Your task to perform on an android device: Open Youtube and go to "Your channel" Image 0: 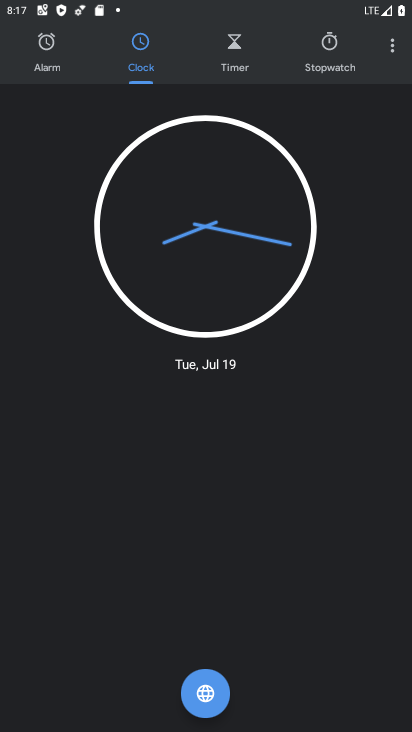
Step 0: press home button
Your task to perform on an android device: Open Youtube and go to "Your channel" Image 1: 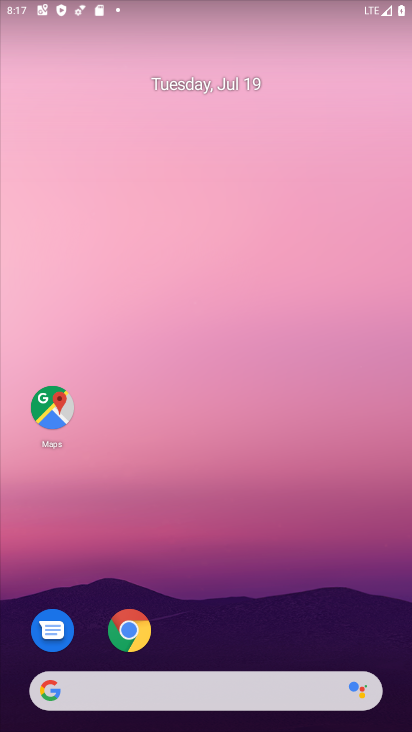
Step 1: drag from (100, 623) to (205, 107)
Your task to perform on an android device: Open Youtube and go to "Your channel" Image 2: 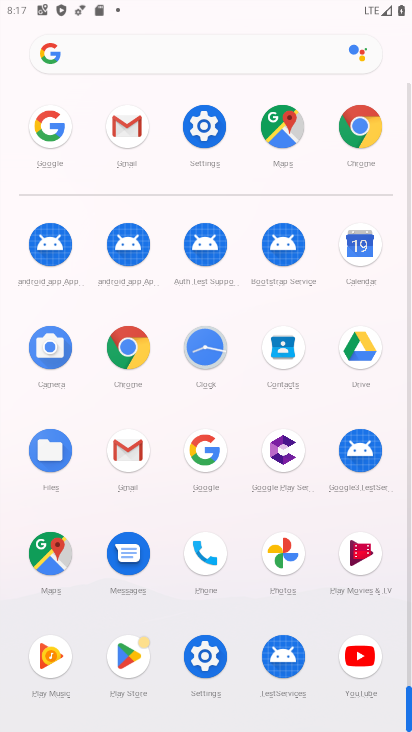
Step 2: drag from (199, 497) to (245, 157)
Your task to perform on an android device: Open Youtube and go to "Your channel" Image 3: 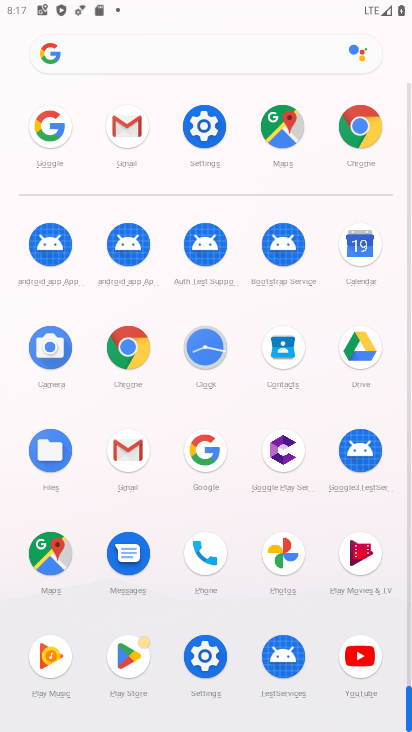
Step 3: click (367, 671)
Your task to perform on an android device: Open Youtube and go to "Your channel" Image 4: 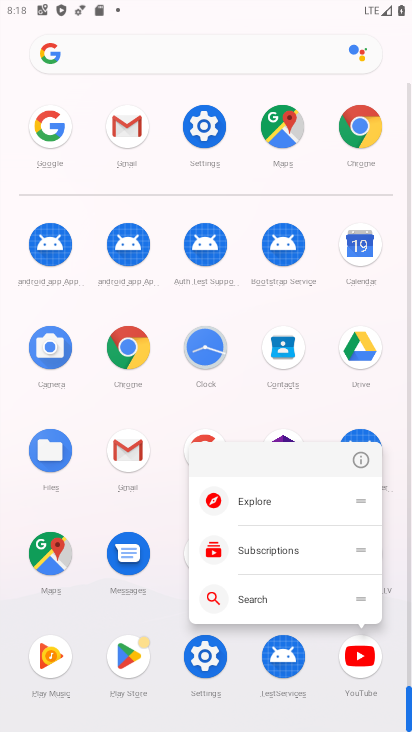
Step 4: click (350, 665)
Your task to perform on an android device: Open Youtube and go to "Your channel" Image 5: 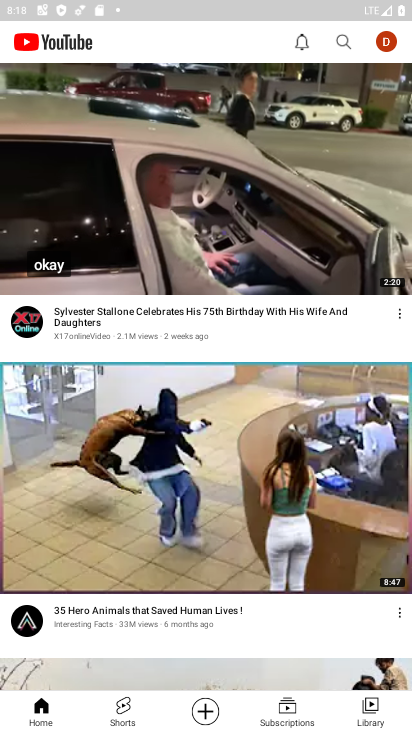
Step 5: press home button
Your task to perform on an android device: Open Youtube and go to "Your channel" Image 6: 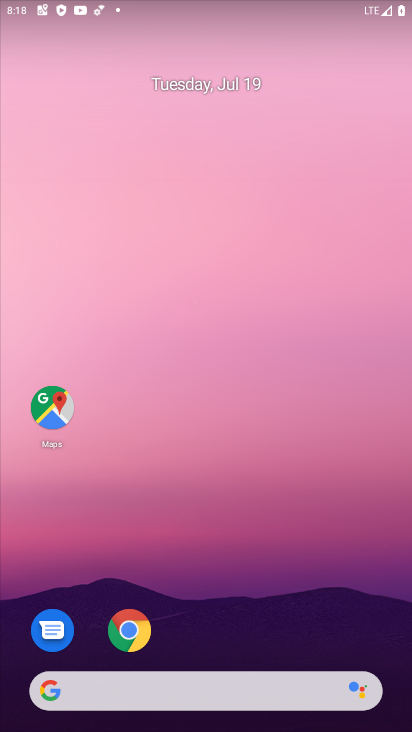
Step 6: drag from (185, 700) to (185, 62)
Your task to perform on an android device: Open Youtube and go to "Your channel" Image 7: 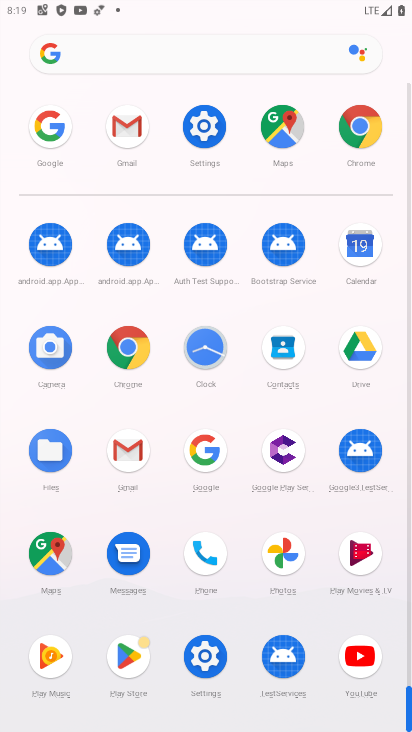
Step 7: click (366, 663)
Your task to perform on an android device: Open Youtube and go to "Your channel" Image 8: 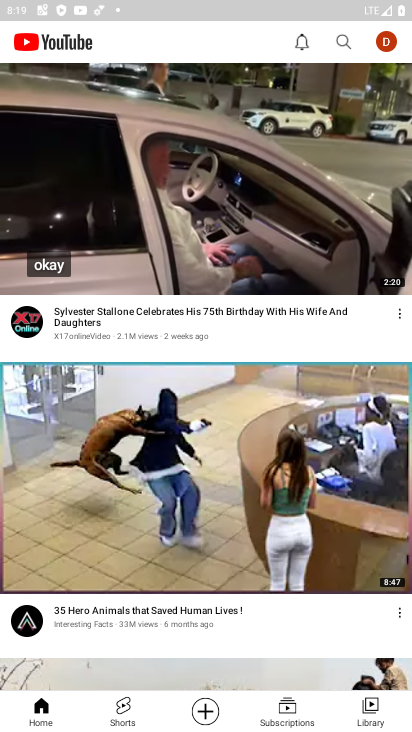
Step 8: click (383, 38)
Your task to perform on an android device: Open Youtube and go to "Your channel" Image 9: 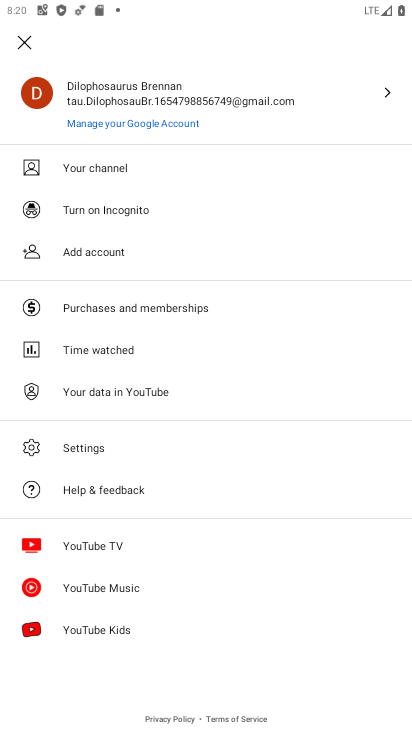
Step 9: click (101, 167)
Your task to perform on an android device: Open Youtube and go to "Your channel" Image 10: 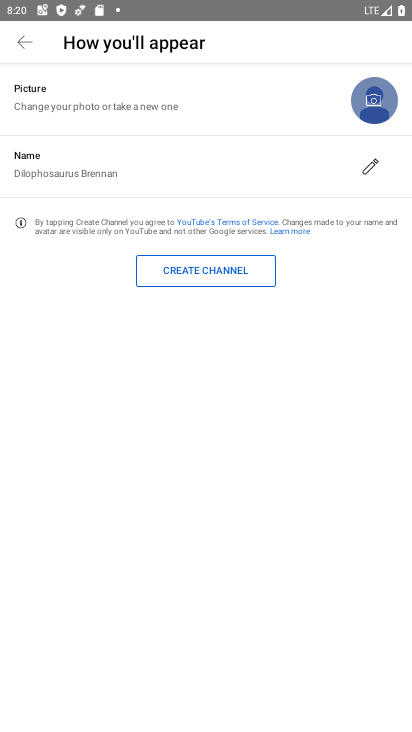
Step 10: task complete